Your task to perform on an android device: turn notification dots off Image 0: 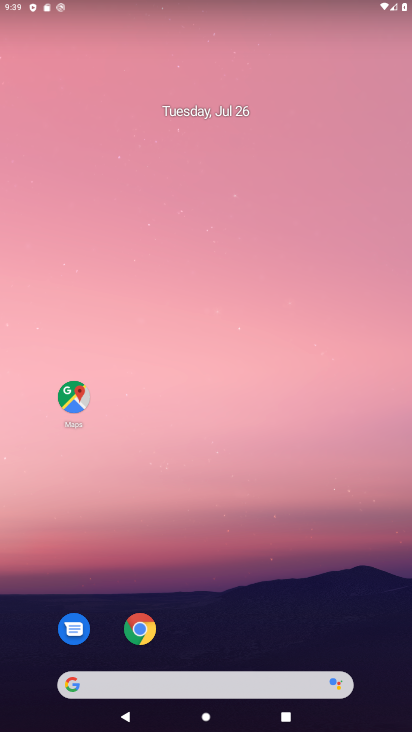
Step 0: drag from (281, 636) to (298, 180)
Your task to perform on an android device: turn notification dots off Image 1: 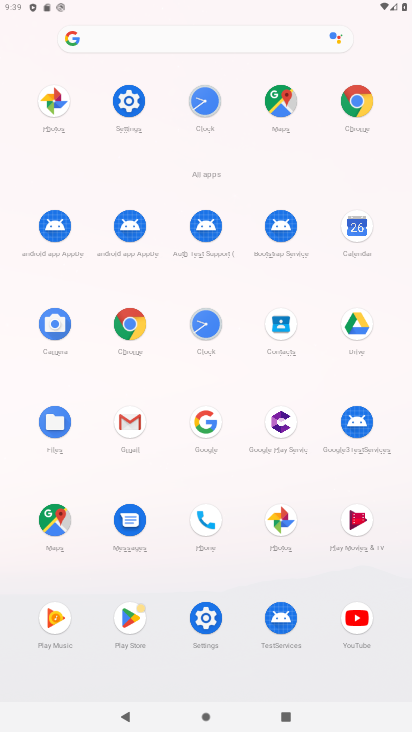
Step 1: click (137, 117)
Your task to perform on an android device: turn notification dots off Image 2: 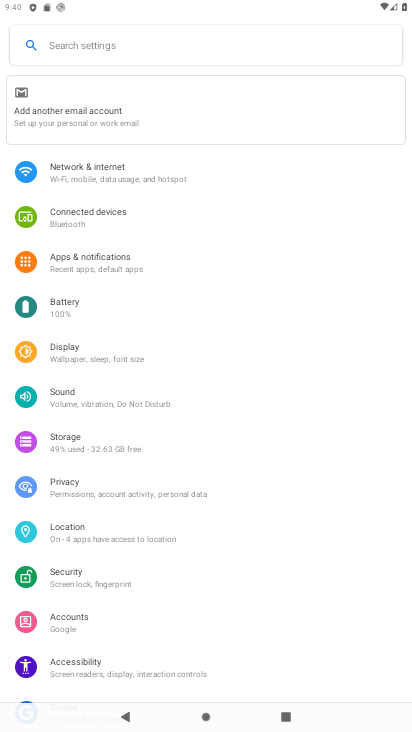
Step 2: click (86, 270)
Your task to perform on an android device: turn notification dots off Image 3: 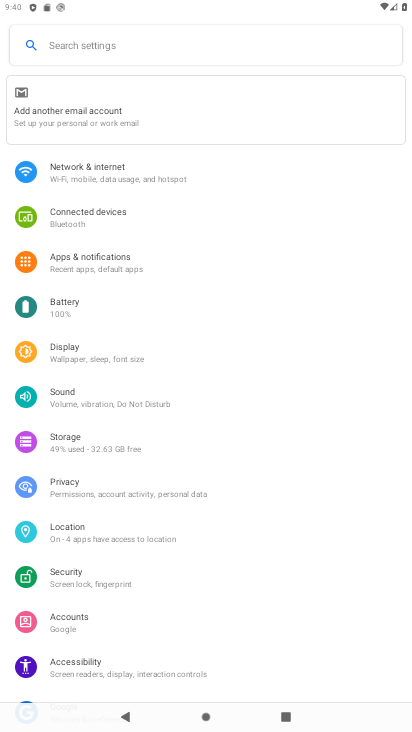
Step 3: task complete